Your task to perform on an android device: empty trash in the gmail app Image 0: 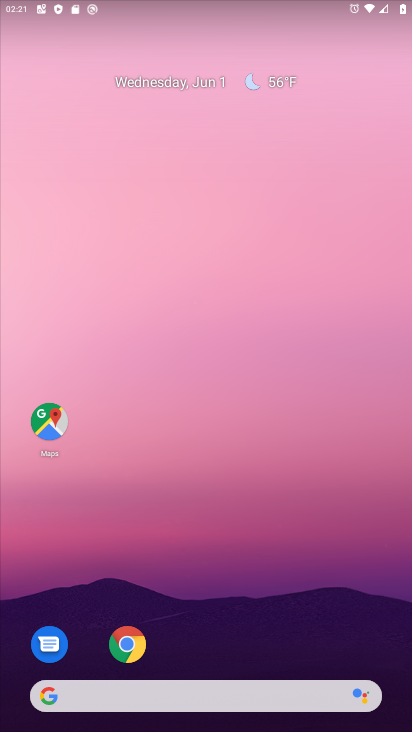
Step 0: drag from (231, 675) to (223, 332)
Your task to perform on an android device: empty trash in the gmail app Image 1: 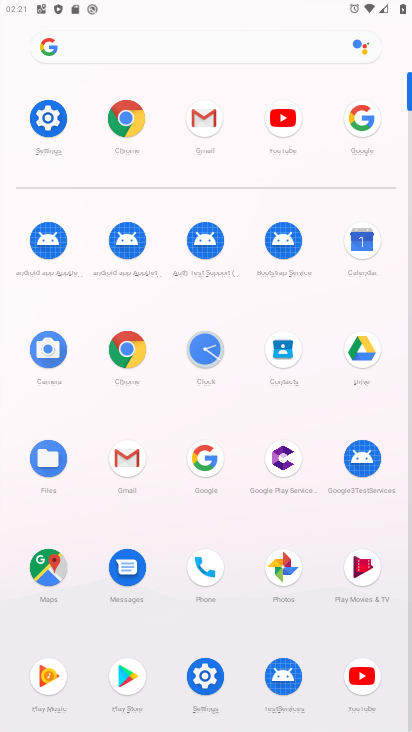
Step 1: click (205, 121)
Your task to perform on an android device: empty trash in the gmail app Image 2: 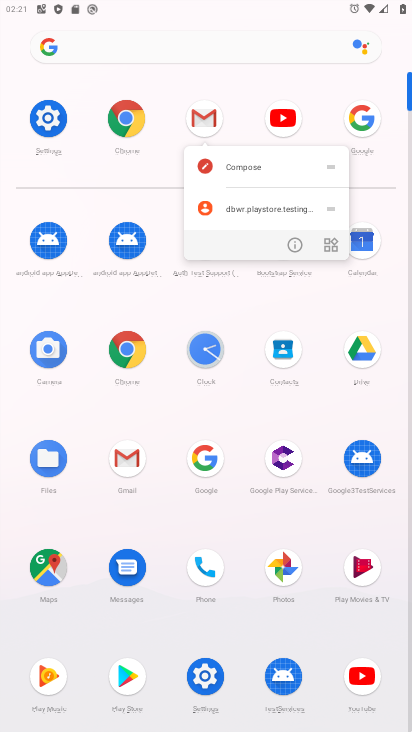
Step 2: click (205, 120)
Your task to perform on an android device: empty trash in the gmail app Image 3: 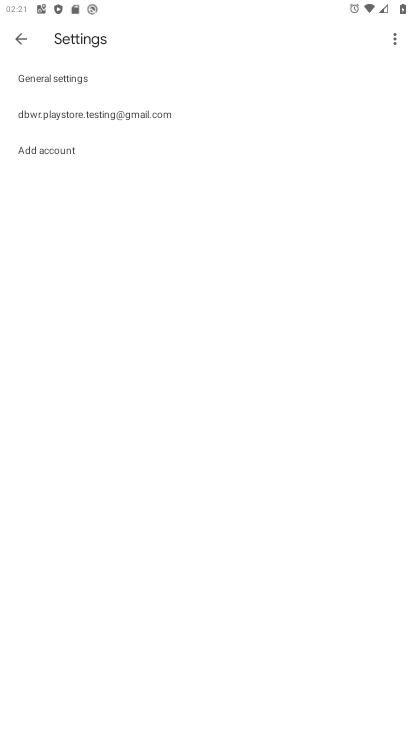
Step 3: click (19, 40)
Your task to perform on an android device: empty trash in the gmail app Image 4: 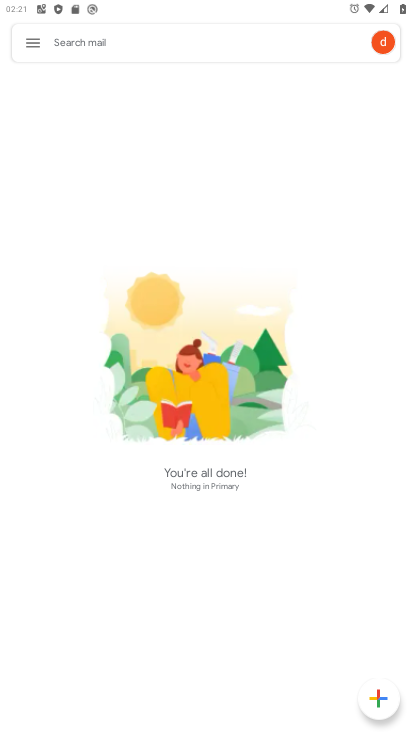
Step 4: click (33, 48)
Your task to perform on an android device: empty trash in the gmail app Image 5: 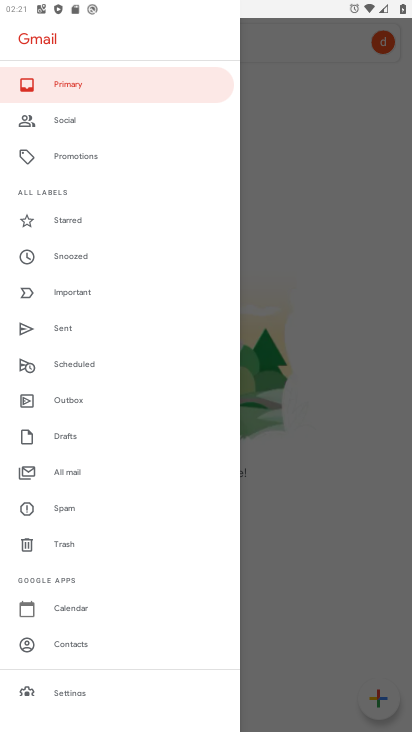
Step 5: click (74, 539)
Your task to perform on an android device: empty trash in the gmail app Image 6: 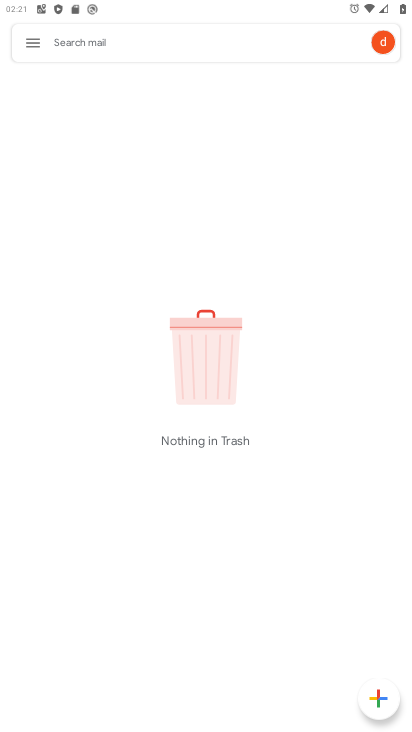
Step 6: task complete